Your task to perform on an android device: choose inbox layout in the gmail app Image 0: 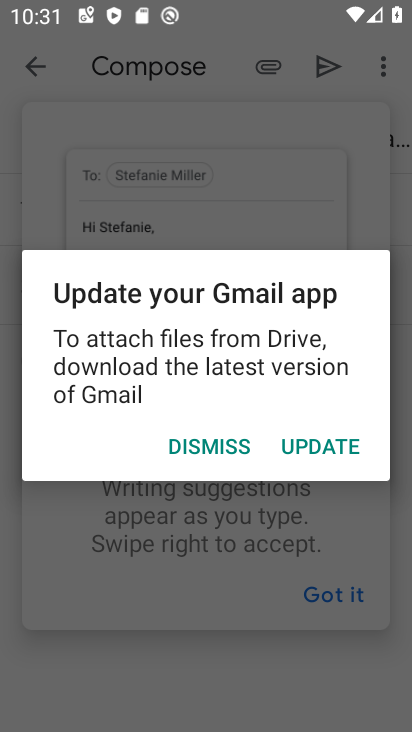
Step 0: press home button
Your task to perform on an android device: choose inbox layout in the gmail app Image 1: 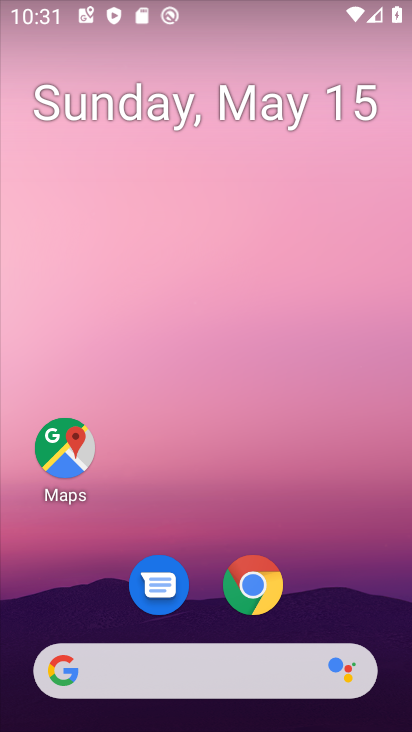
Step 1: drag from (205, 505) to (240, 37)
Your task to perform on an android device: choose inbox layout in the gmail app Image 2: 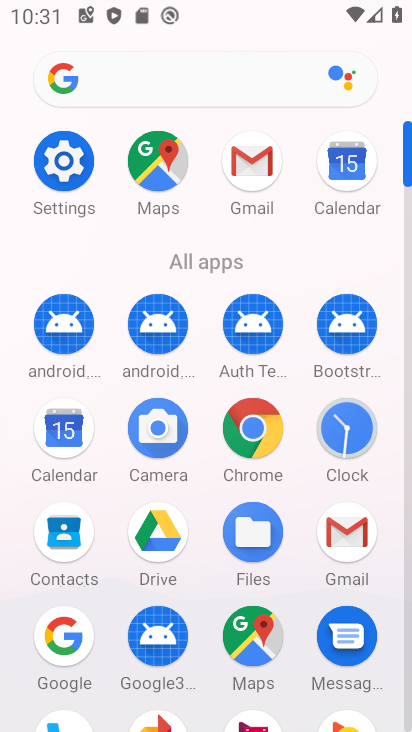
Step 2: click (242, 166)
Your task to perform on an android device: choose inbox layout in the gmail app Image 3: 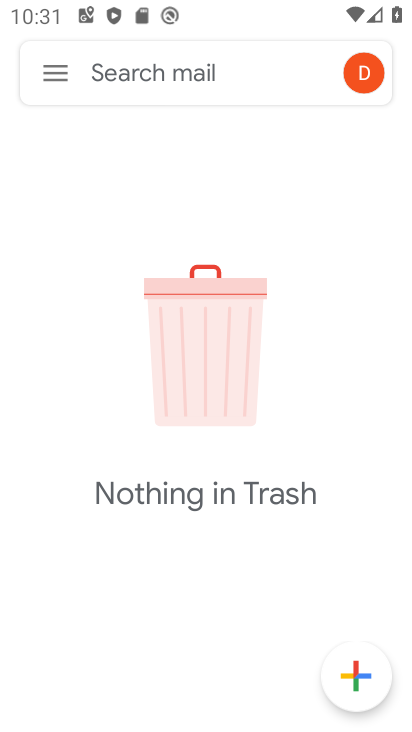
Step 3: click (62, 68)
Your task to perform on an android device: choose inbox layout in the gmail app Image 4: 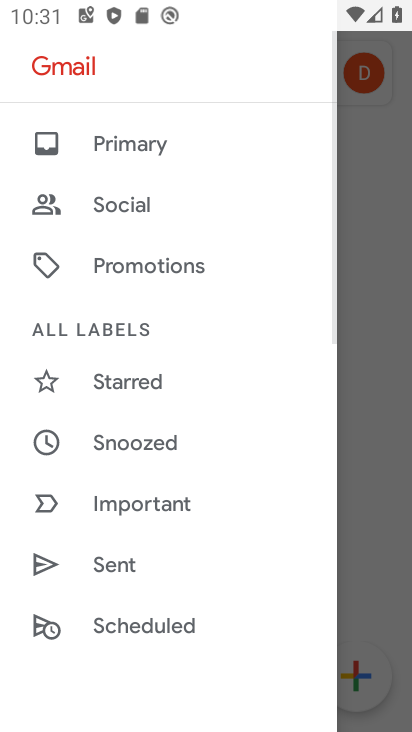
Step 4: drag from (186, 528) to (210, 73)
Your task to perform on an android device: choose inbox layout in the gmail app Image 5: 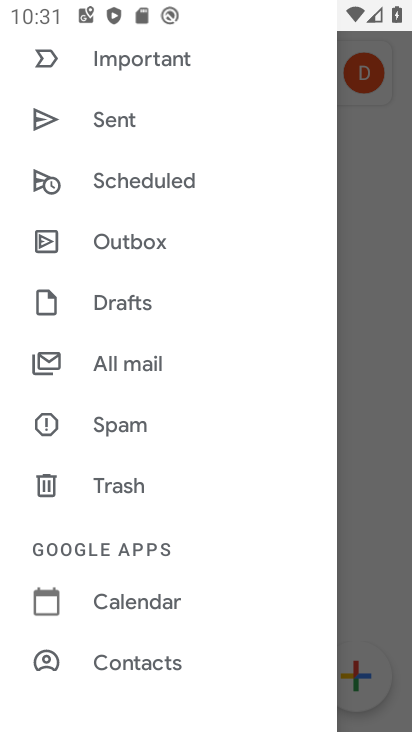
Step 5: drag from (182, 475) to (201, 147)
Your task to perform on an android device: choose inbox layout in the gmail app Image 6: 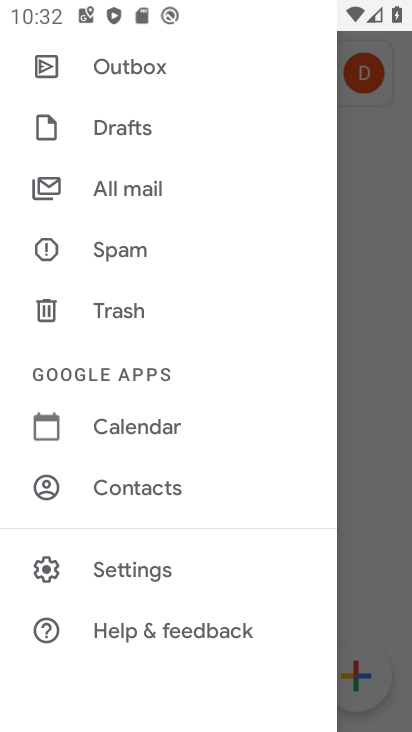
Step 6: click (146, 556)
Your task to perform on an android device: choose inbox layout in the gmail app Image 7: 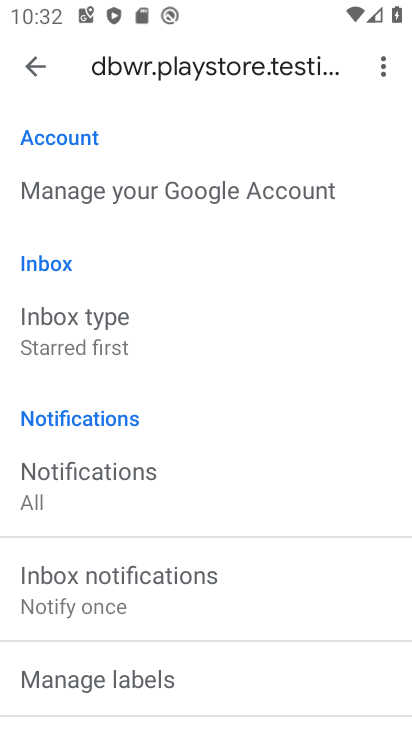
Step 7: click (116, 310)
Your task to perform on an android device: choose inbox layout in the gmail app Image 8: 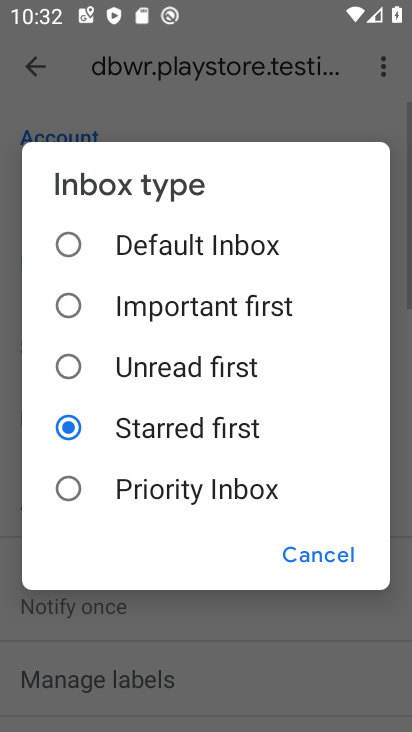
Step 8: click (108, 233)
Your task to perform on an android device: choose inbox layout in the gmail app Image 9: 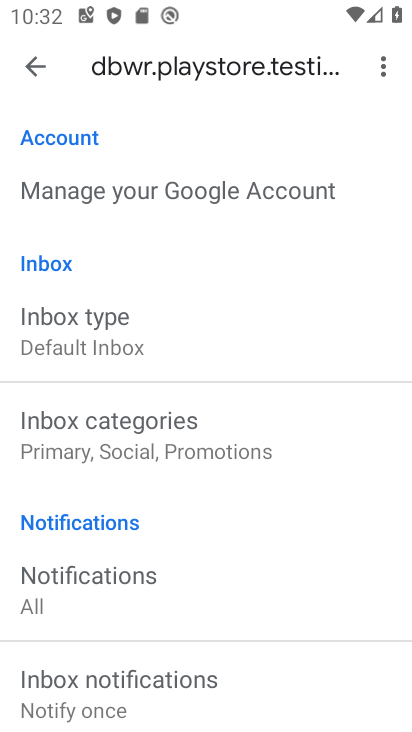
Step 9: task complete